Your task to perform on an android device: Open Google Maps and go to "Timeline" Image 0: 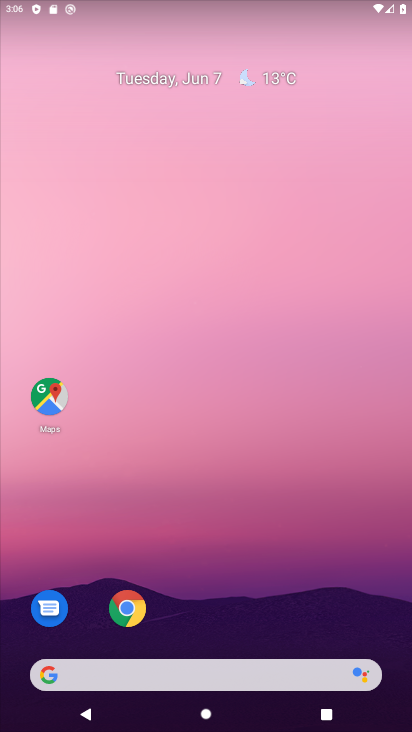
Step 0: drag from (117, 625) to (232, 107)
Your task to perform on an android device: Open Google Maps and go to "Timeline" Image 1: 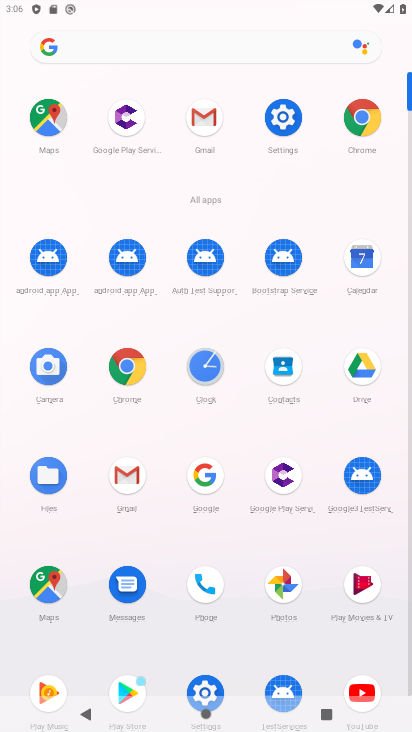
Step 1: drag from (196, 594) to (247, 363)
Your task to perform on an android device: Open Google Maps and go to "Timeline" Image 2: 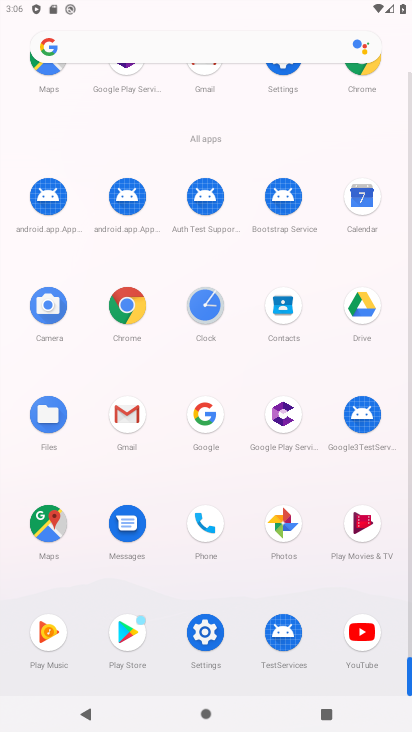
Step 2: click (42, 520)
Your task to perform on an android device: Open Google Maps and go to "Timeline" Image 3: 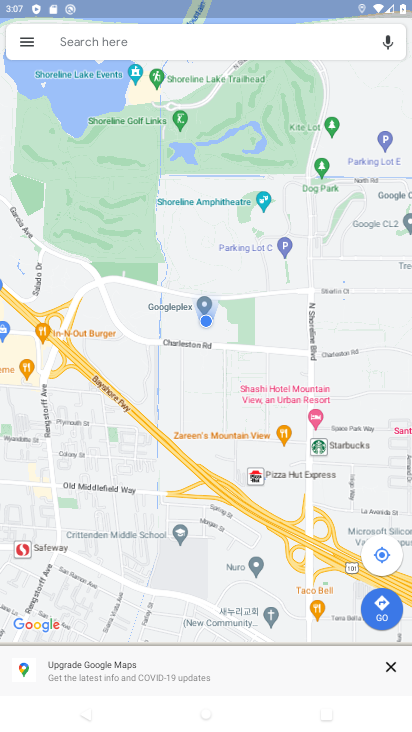
Step 3: click (27, 41)
Your task to perform on an android device: Open Google Maps and go to "Timeline" Image 4: 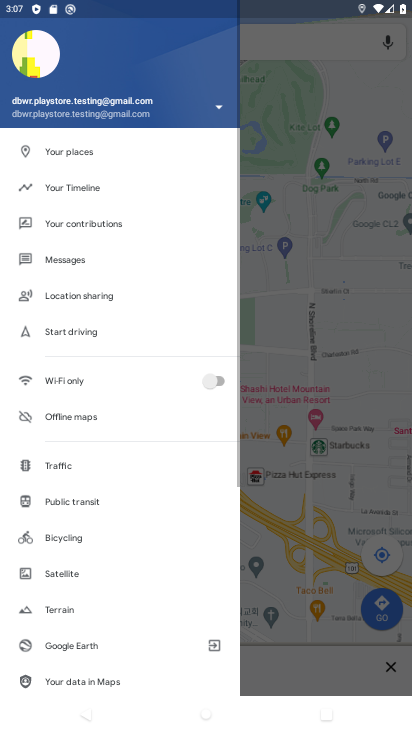
Step 4: click (89, 197)
Your task to perform on an android device: Open Google Maps and go to "Timeline" Image 5: 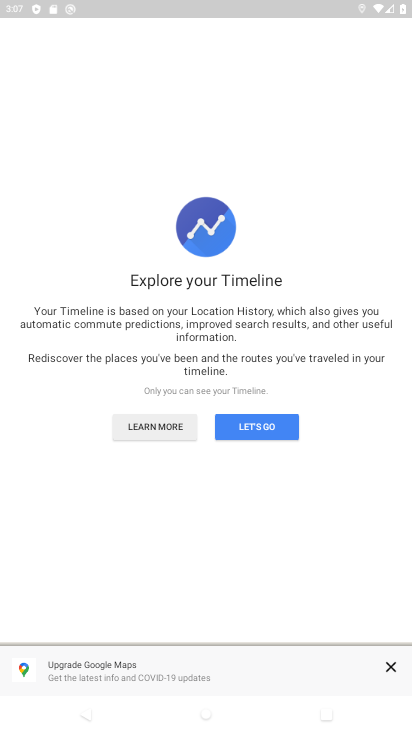
Step 5: click (263, 430)
Your task to perform on an android device: Open Google Maps and go to "Timeline" Image 6: 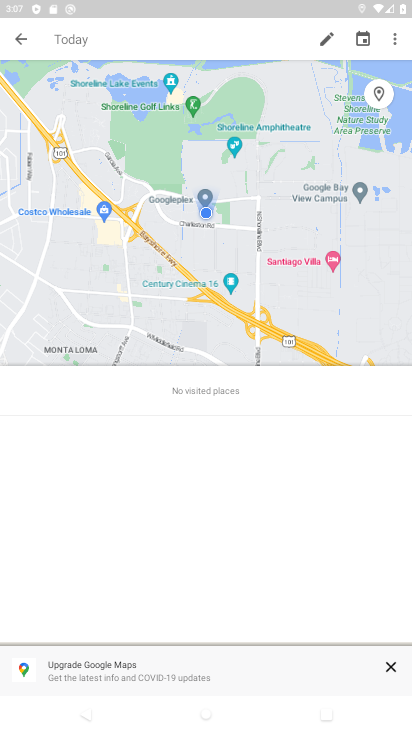
Step 6: click (391, 663)
Your task to perform on an android device: Open Google Maps and go to "Timeline" Image 7: 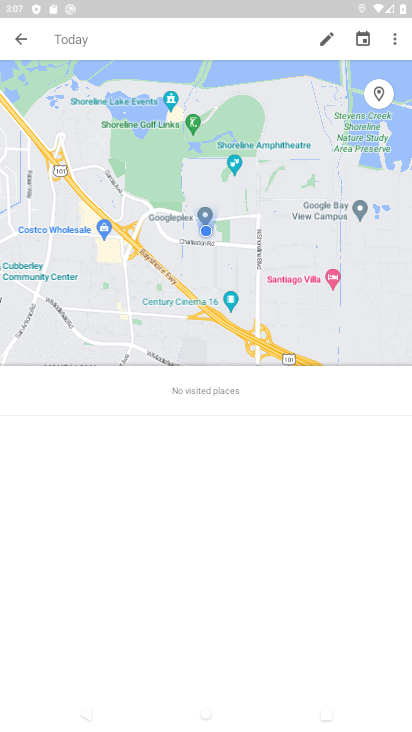
Step 7: task complete